Your task to perform on an android device: move an email to a new category in the gmail app Image 0: 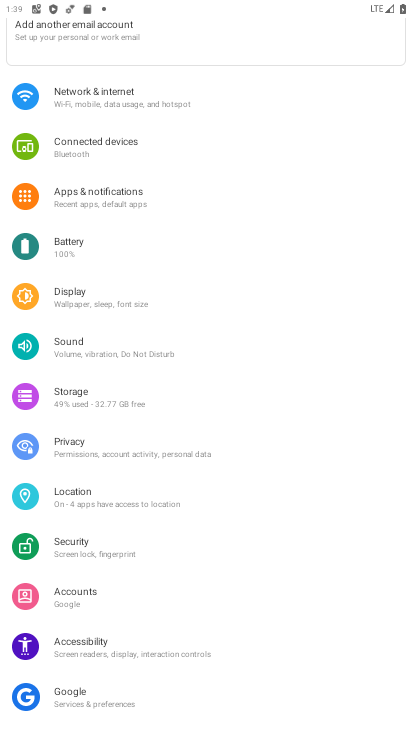
Step 0: press home button
Your task to perform on an android device: move an email to a new category in the gmail app Image 1: 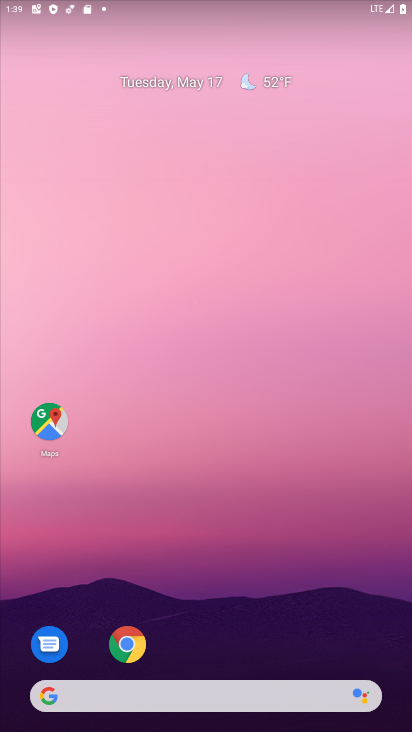
Step 1: drag from (191, 691) to (213, 259)
Your task to perform on an android device: move an email to a new category in the gmail app Image 2: 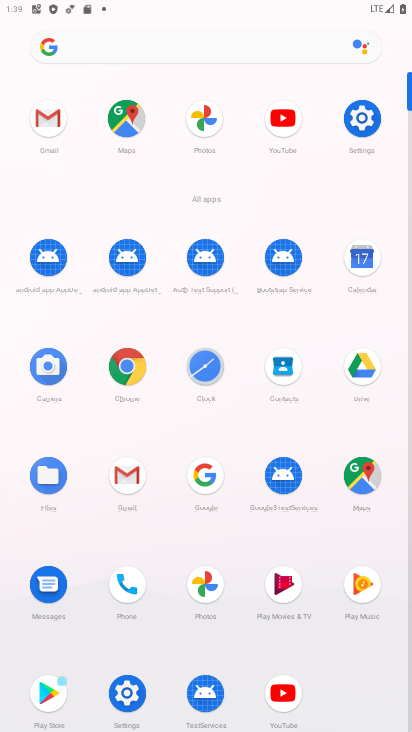
Step 2: click (134, 482)
Your task to perform on an android device: move an email to a new category in the gmail app Image 3: 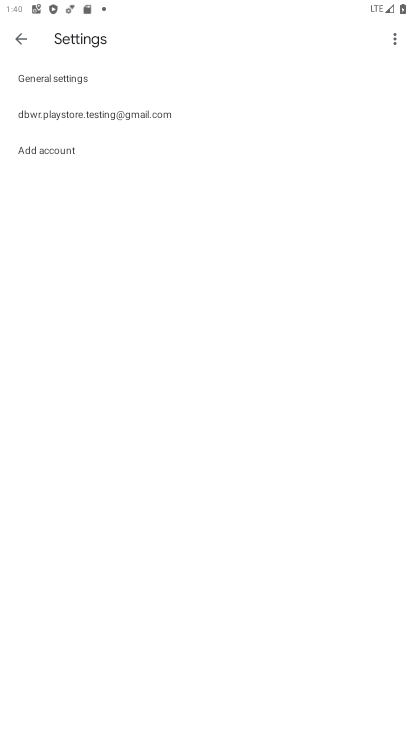
Step 3: click (24, 32)
Your task to perform on an android device: move an email to a new category in the gmail app Image 4: 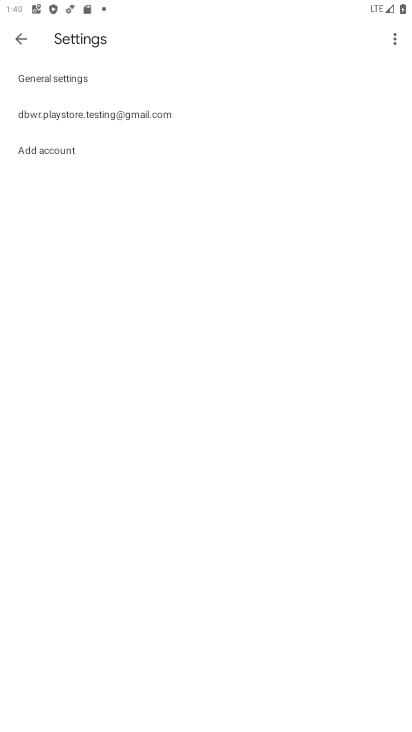
Step 4: click (24, 32)
Your task to perform on an android device: move an email to a new category in the gmail app Image 5: 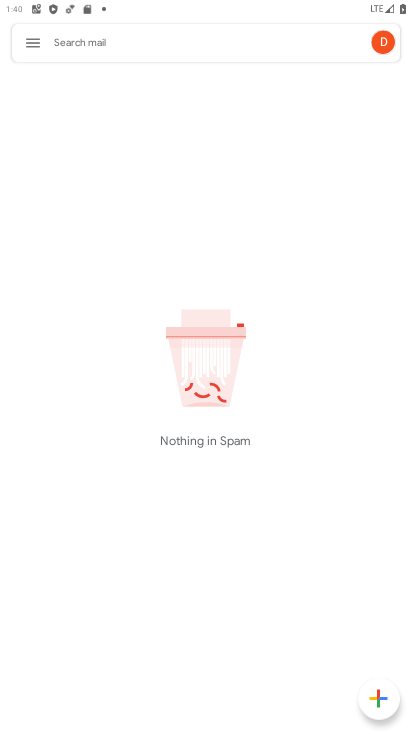
Step 5: click (42, 46)
Your task to perform on an android device: move an email to a new category in the gmail app Image 6: 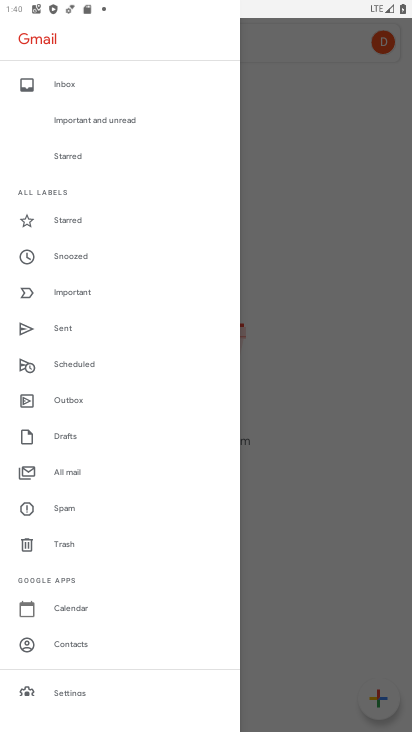
Step 6: click (78, 469)
Your task to perform on an android device: move an email to a new category in the gmail app Image 7: 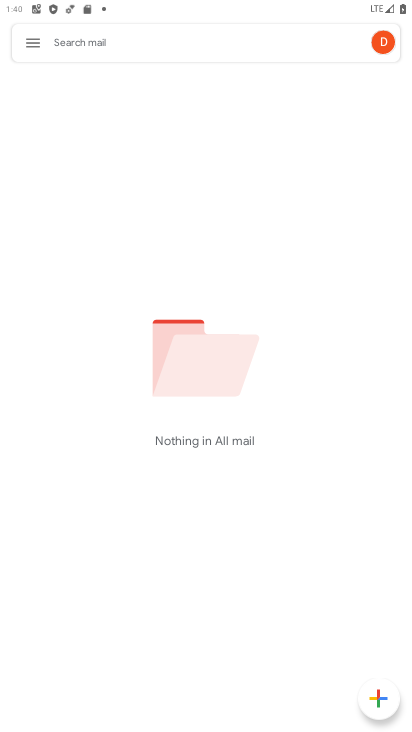
Step 7: task complete